Your task to perform on an android device: What's the weather today? Image 0: 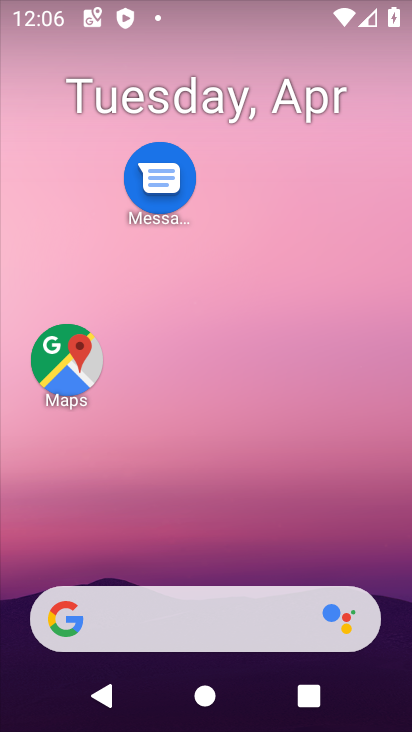
Step 0: drag from (202, 726) to (197, 48)
Your task to perform on an android device: What's the weather today? Image 1: 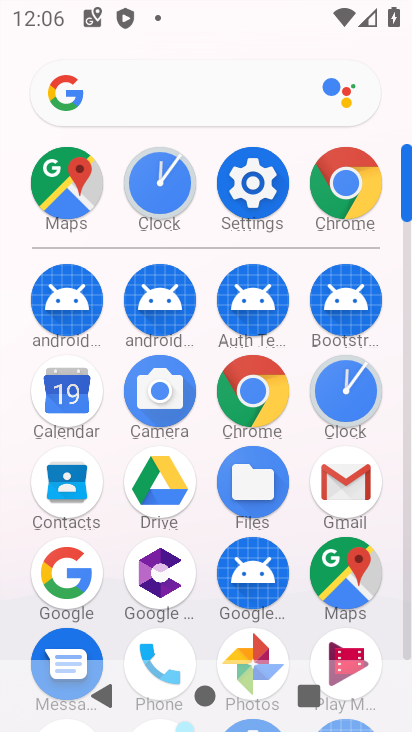
Step 1: click (63, 571)
Your task to perform on an android device: What's the weather today? Image 2: 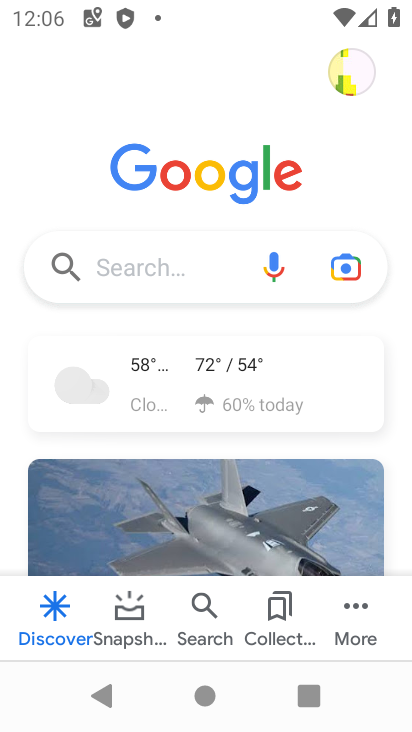
Step 2: click (234, 367)
Your task to perform on an android device: What's the weather today? Image 3: 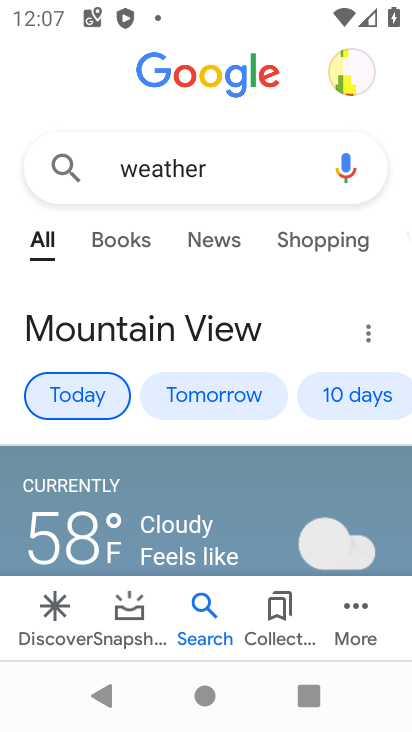
Step 3: task complete